Your task to perform on an android device: turn on improve location accuracy Image 0: 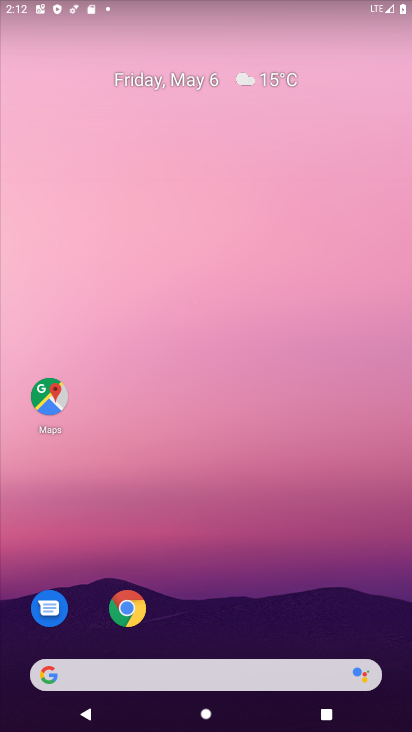
Step 0: drag from (269, 537) to (255, 33)
Your task to perform on an android device: turn on improve location accuracy Image 1: 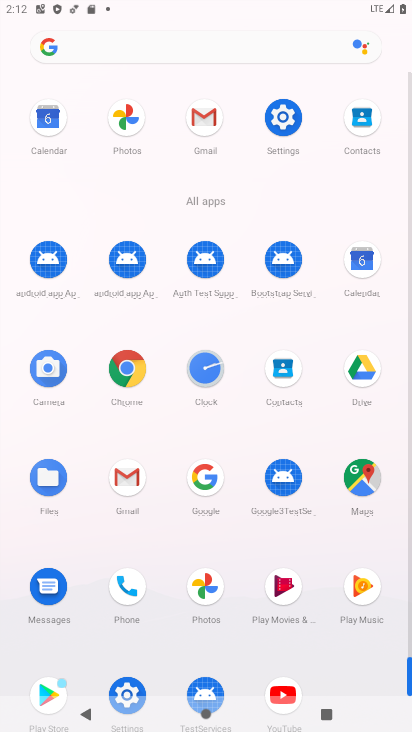
Step 1: click (283, 115)
Your task to perform on an android device: turn on improve location accuracy Image 2: 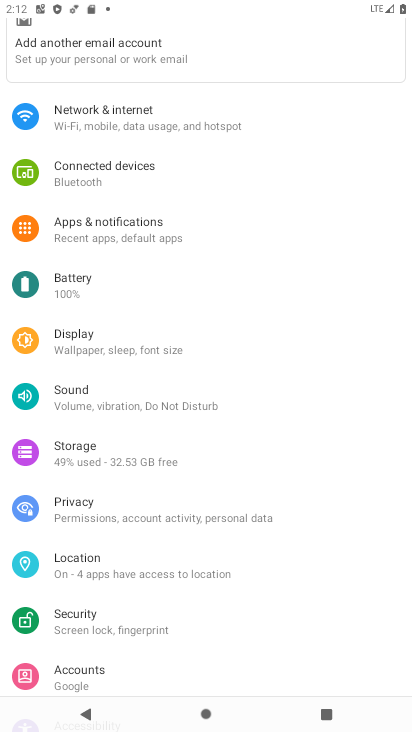
Step 2: click (93, 564)
Your task to perform on an android device: turn on improve location accuracy Image 3: 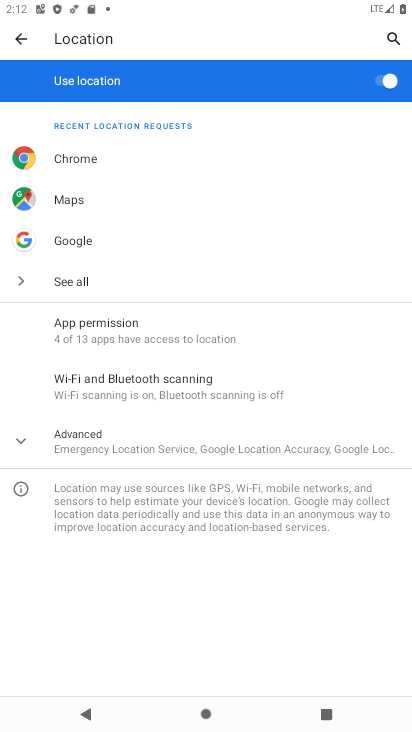
Step 3: click (162, 452)
Your task to perform on an android device: turn on improve location accuracy Image 4: 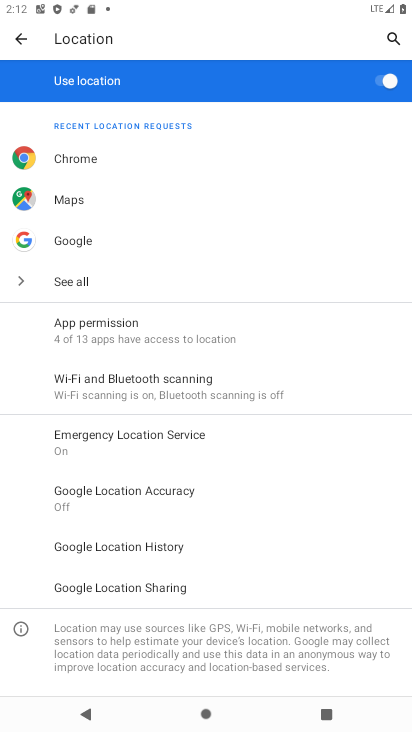
Step 4: click (156, 495)
Your task to perform on an android device: turn on improve location accuracy Image 5: 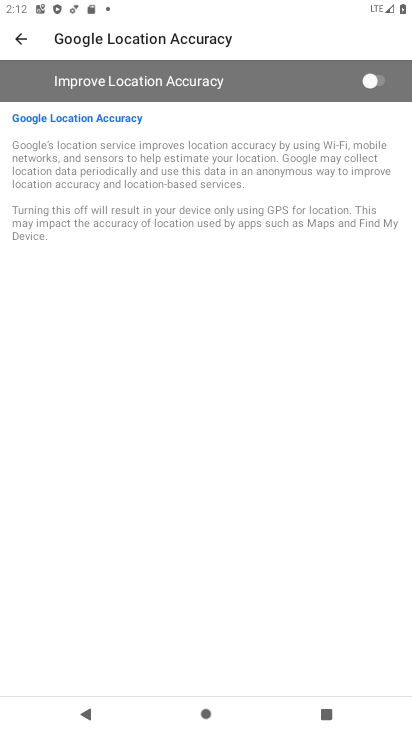
Step 5: click (369, 84)
Your task to perform on an android device: turn on improve location accuracy Image 6: 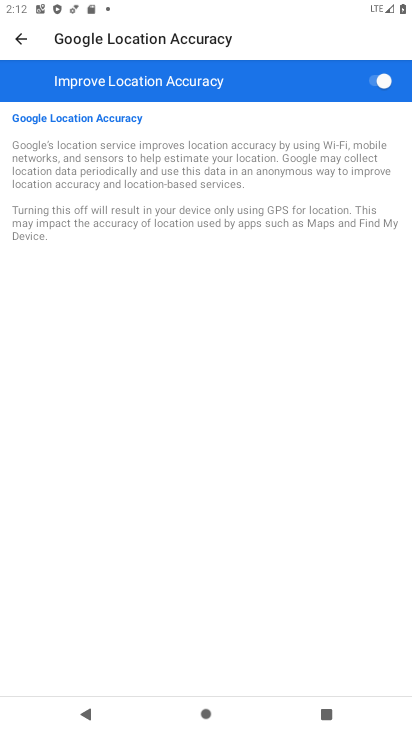
Step 6: task complete